Your task to perform on an android device: Clear the shopping cart on walmart.com. Search for "bose soundsport free" on walmart.com, select the first entry, add it to the cart, then select checkout. Image 0: 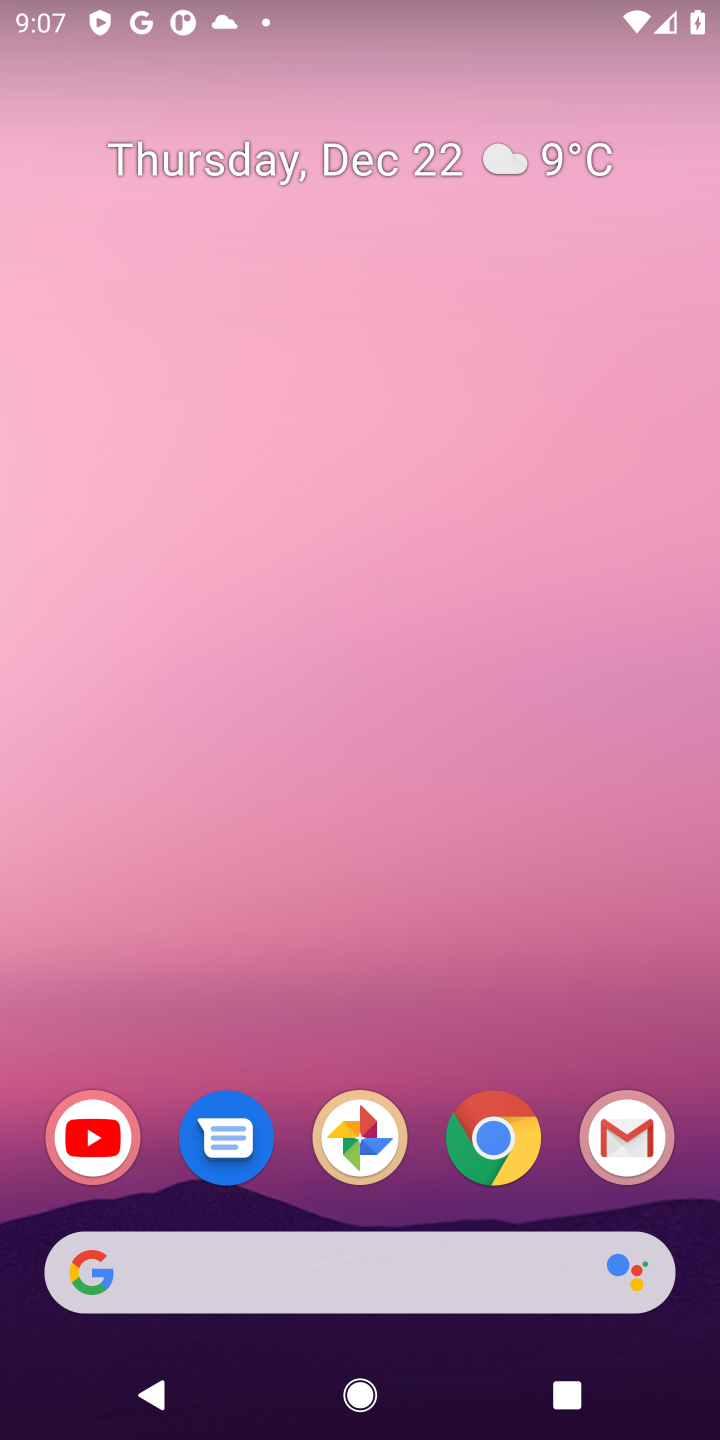
Step 0: click (492, 1139)
Your task to perform on an android device: Clear the shopping cart on walmart.com. Search for "bose soundsport free" on walmart.com, select the first entry, add it to the cart, then select checkout. Image 1: 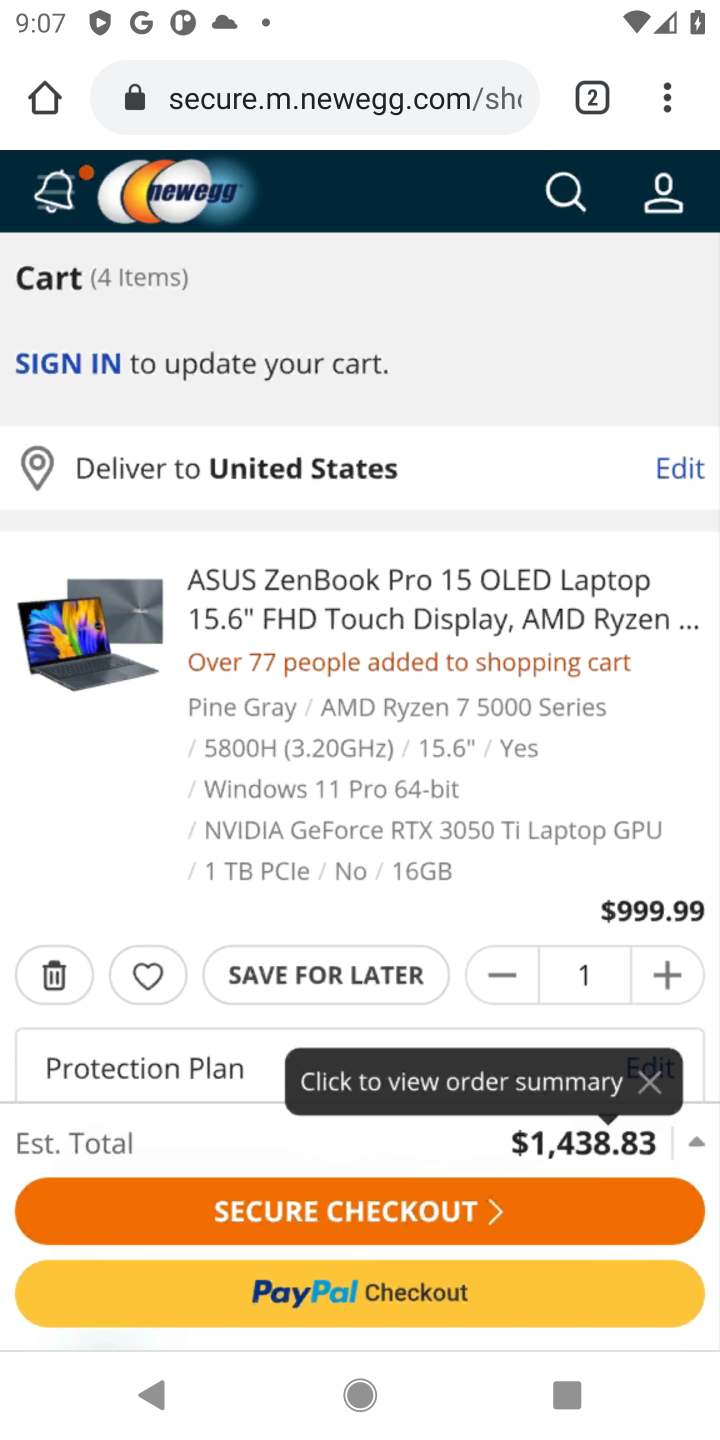
Step 1: click (283, 102)
Your task to perform on an android device: Clear the shopping cart on walmart.com. Search for "bose soundsport free" on walmart.com, select the first entry, add it to the cart, then select checkout. Image 2: 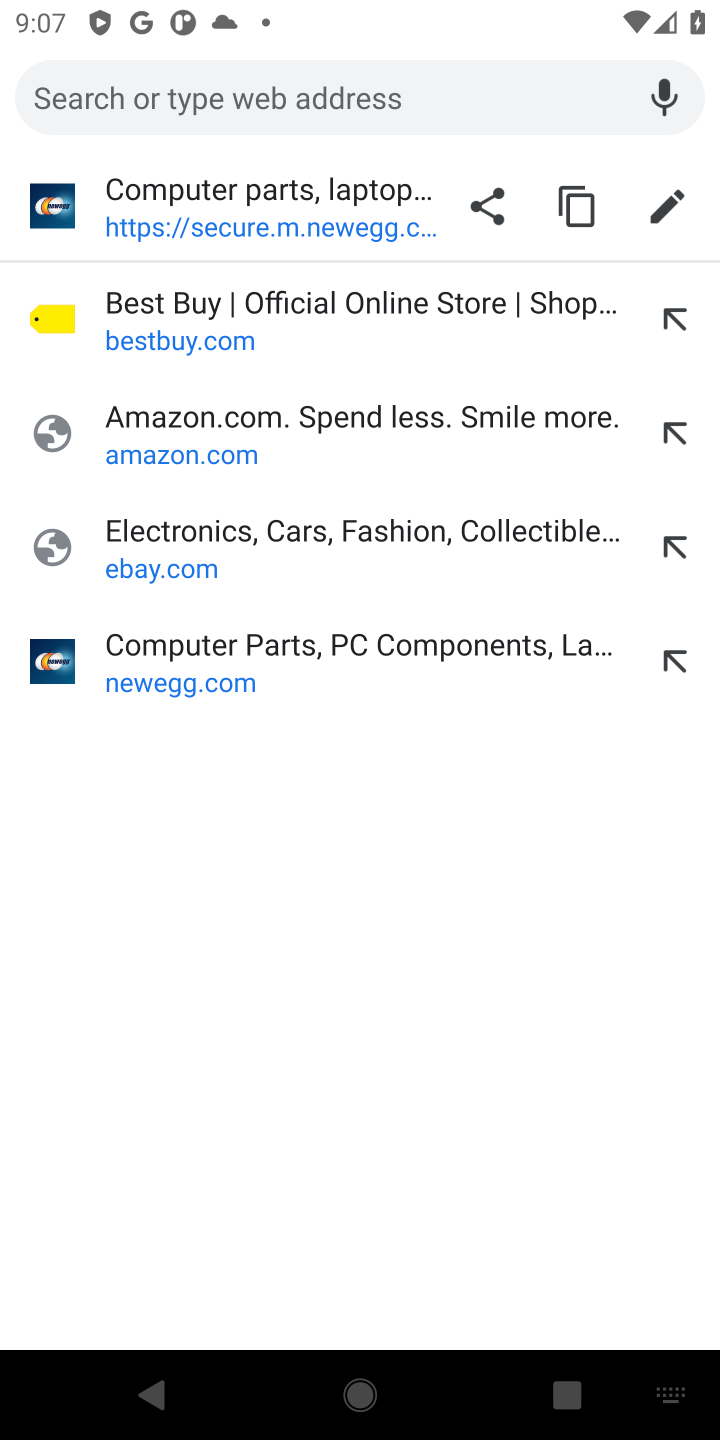
Step 2: type "walmart.com"
Your task to perform on an android device: Clear the shopping cart on walmart.com. Search for "bose soundsport free" on walmart.com, select the first entry, add it to the cart, then select checkout. Image 3: 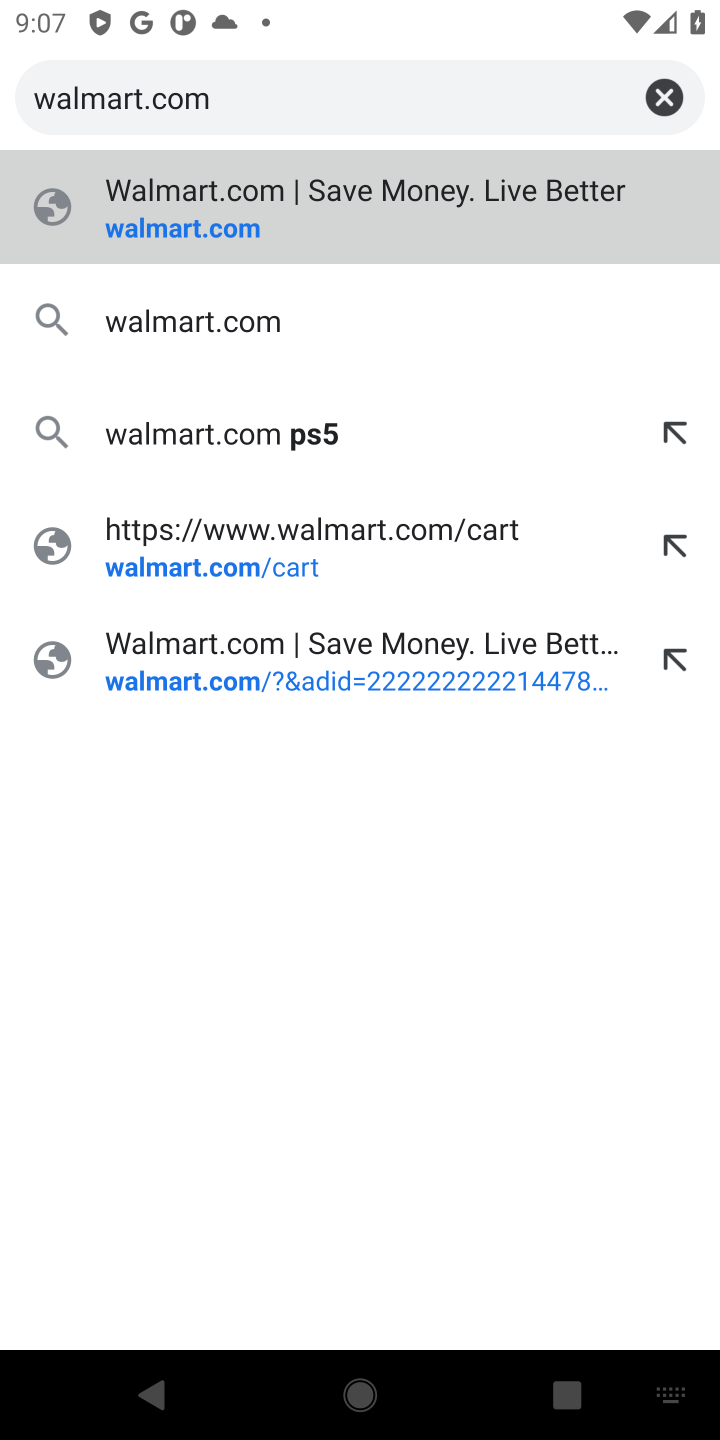
Step 3: click (173, 222)
Your task to perform on an android device: Clear the shopping cart on walmart.com. Search for "bose soundsport free" on walmart.com, select the first entry, add it to the cart, then select checkout. Image 4: 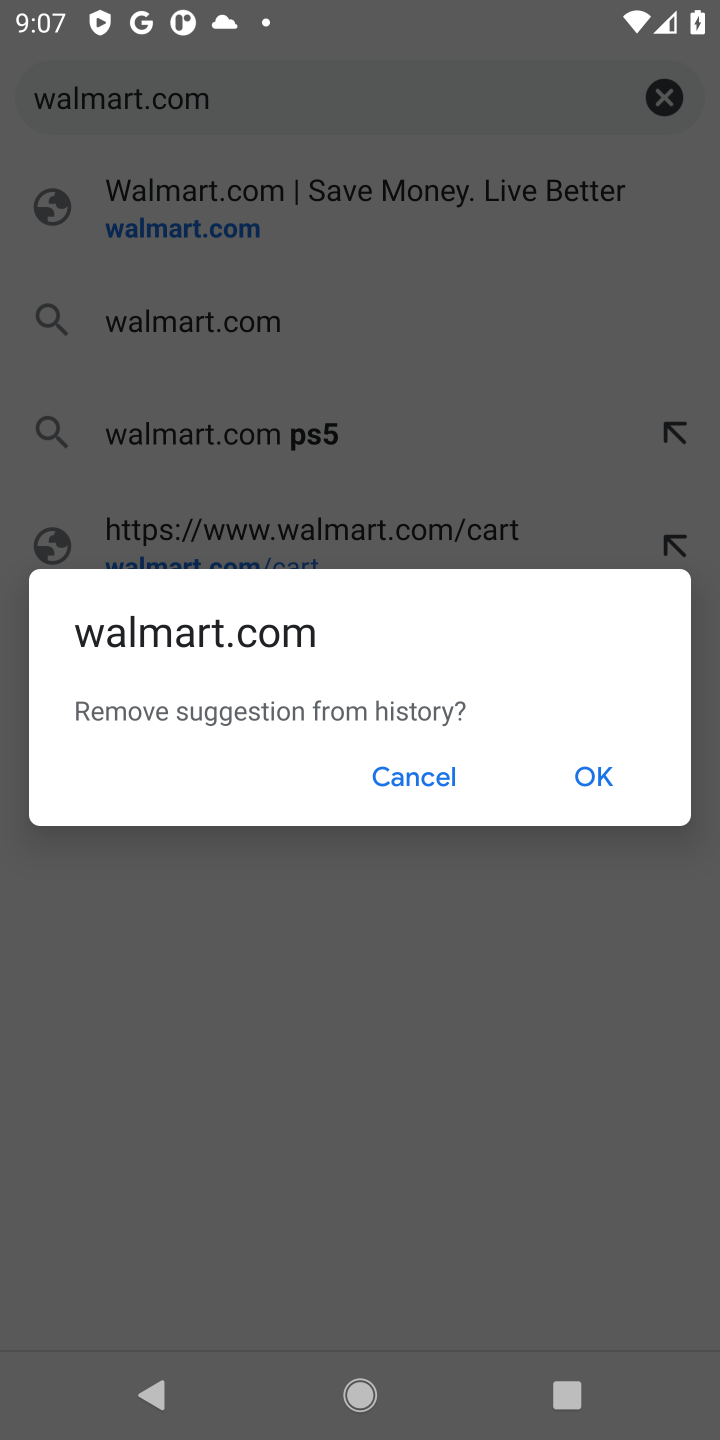
Step 4: click (586, 779)
Your task to perform on an android device: Clear the shopping cart on walmart.com. Search for "bose soundsport free" on walmart.com, select the first entry, add it to the cart, then select checkout. Image 5: 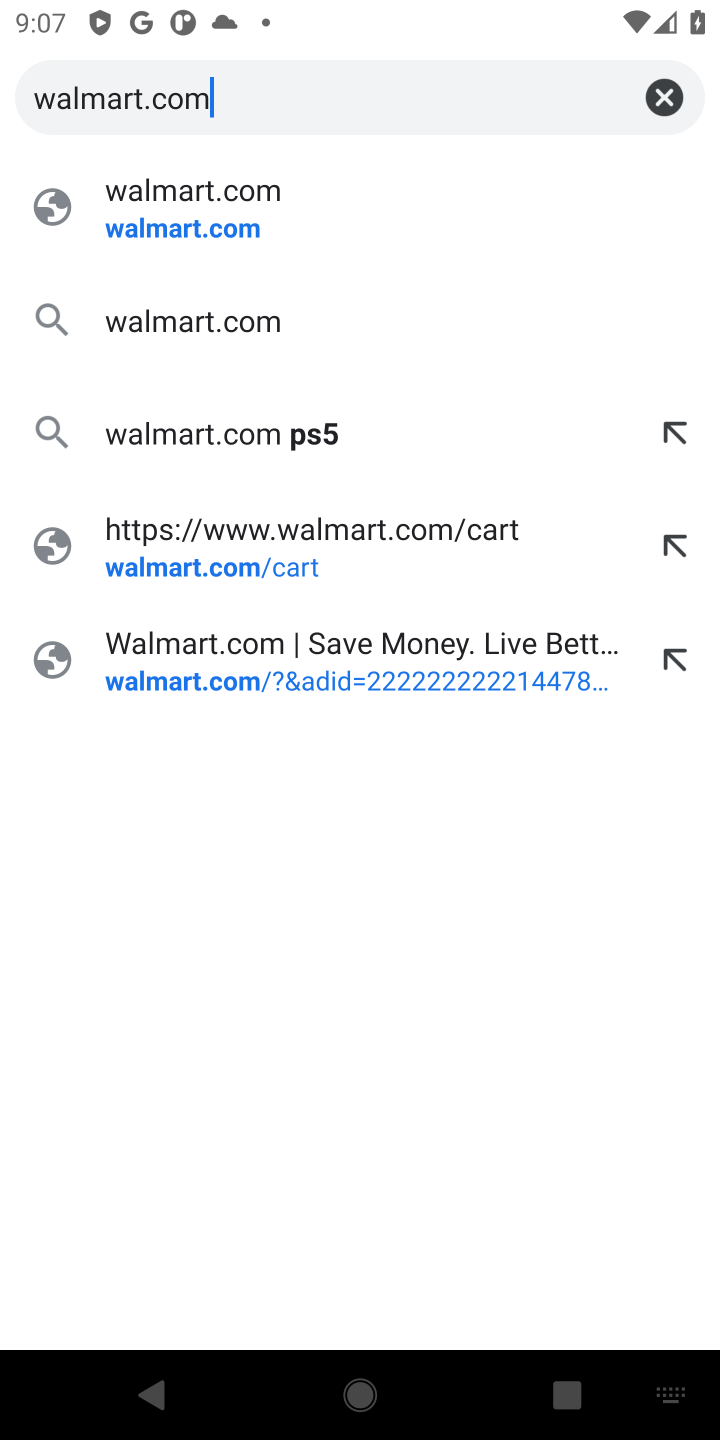
Step 5: press enter
Your task to perform on an android device: Clear the shopping cart on walmart.com. Search for "bose soundsport free" on walmart.com, select the first entry, add it to the cart, then select checkout. Image 6: 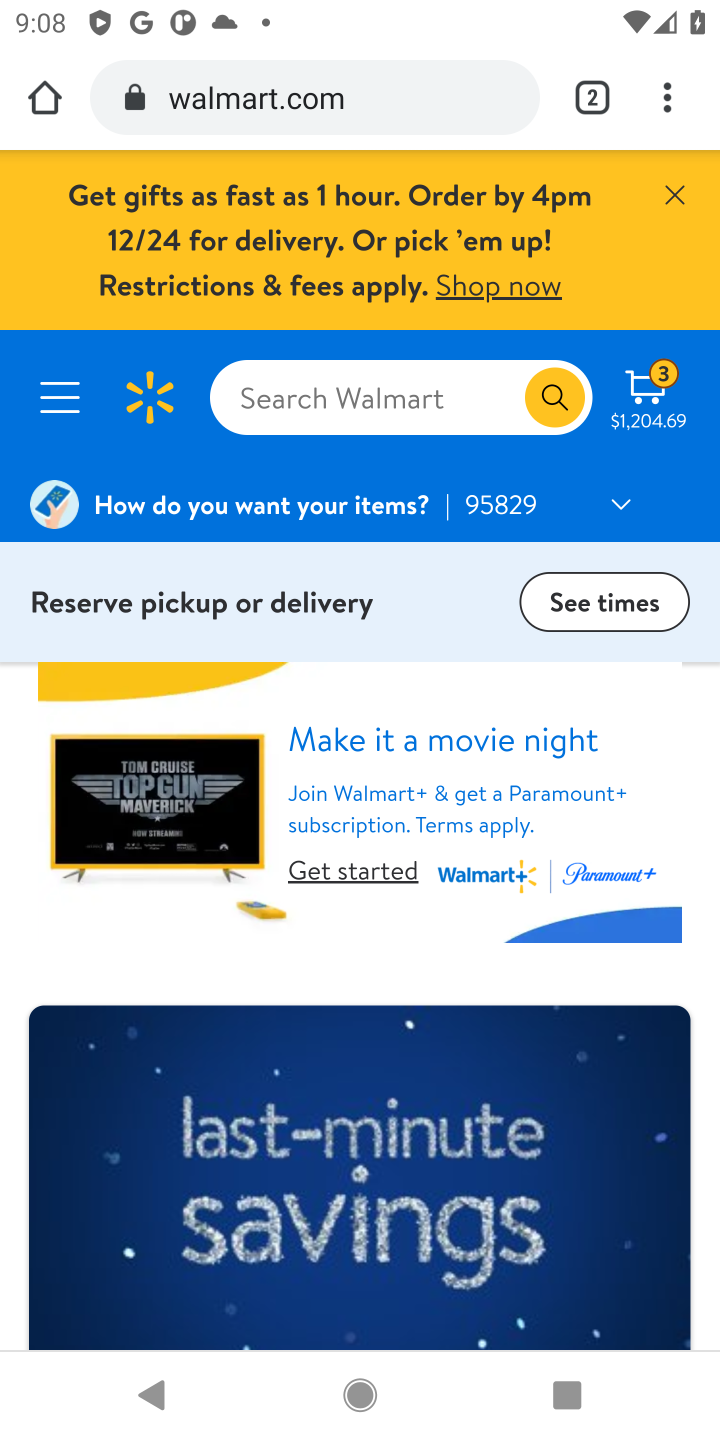
Step 6: click (411, 388)
Your task to perform on an android device: Clear the shopping cart on walmart.com. Search for "bose soundsport free" on walmart.com, select the first entry, add it to the cart, then select checkout. Image 7: 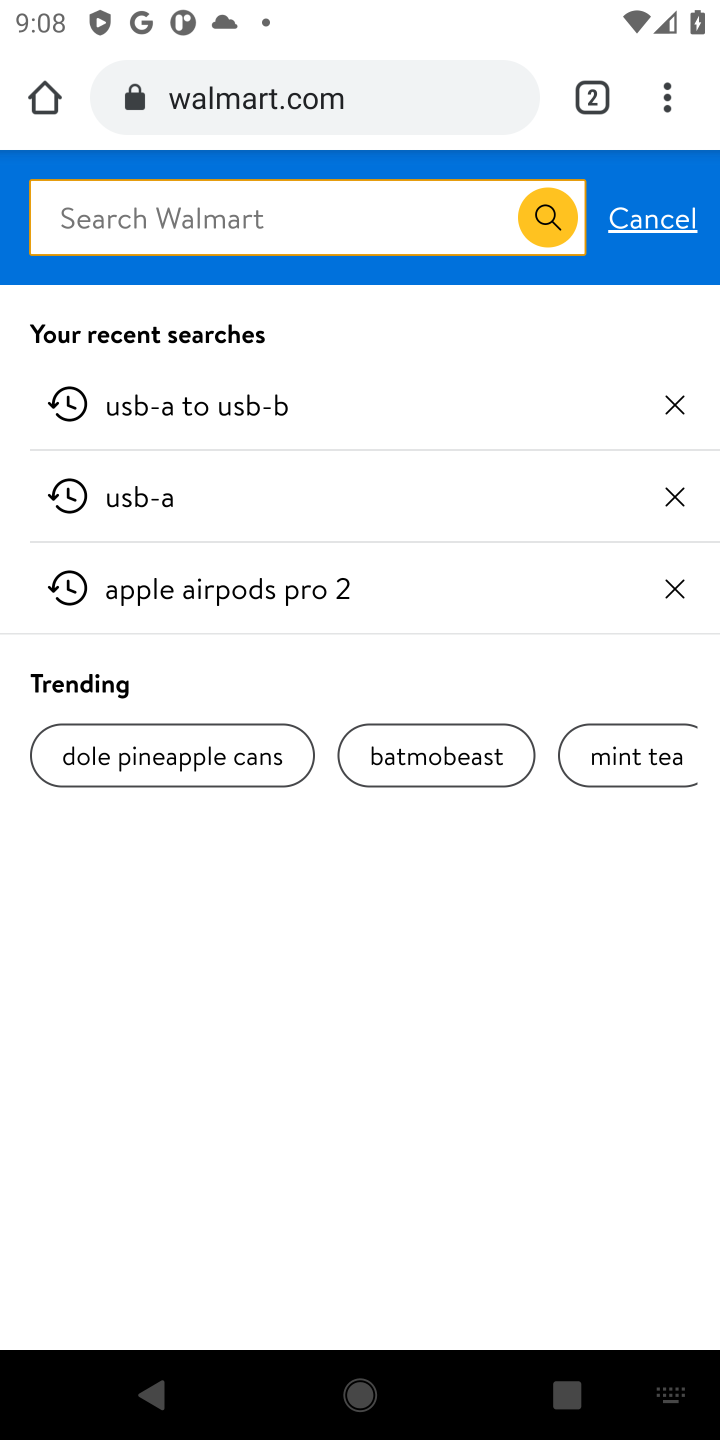
Step 7: type "bose soundsport free"
Your task to perform on an android device: Clear the shopping cart on walmart.com. Search for "bose soundsport free" on walmart.com, select the first entry, add it to the cart, then select checkout. Image 8: 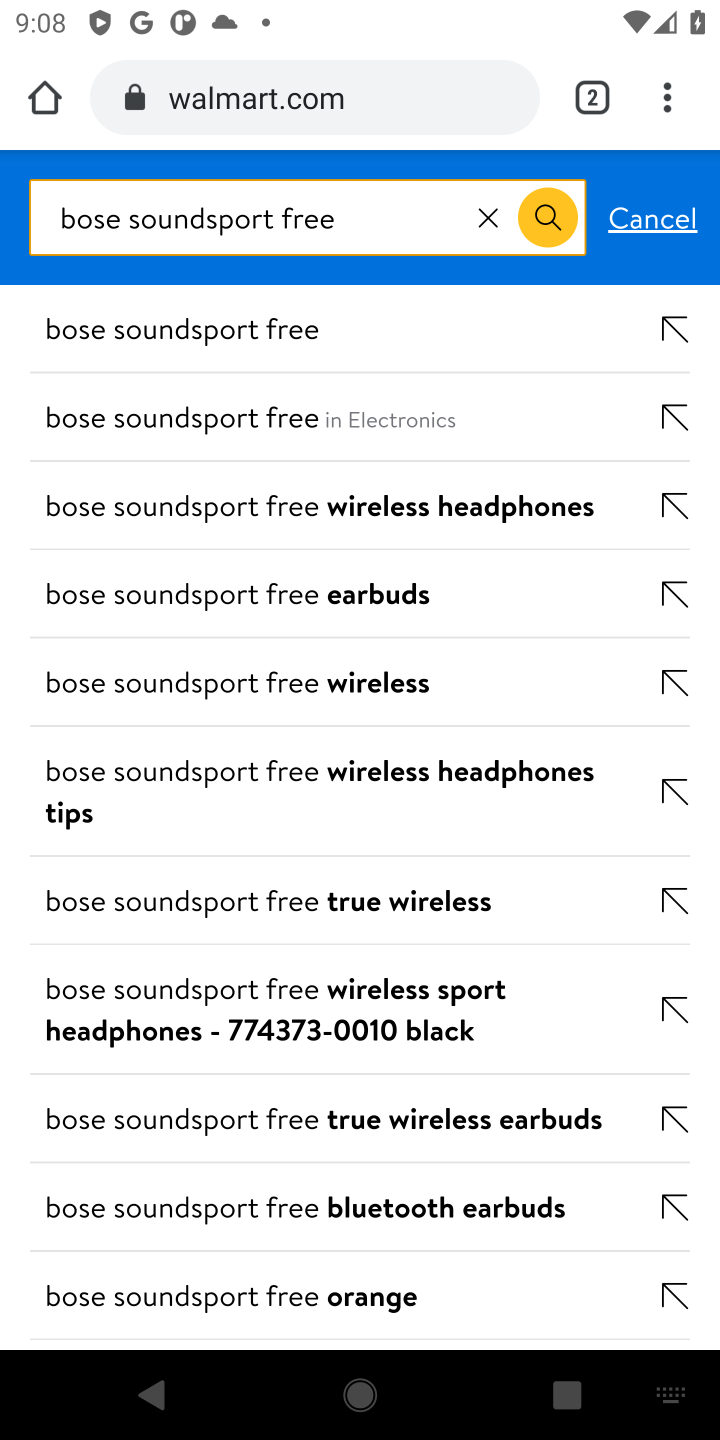
Step 8: click (553, 218)
Your task to perform on an android device: Clear the shopping cart on walmart.com. Search for "bose soundsport free" on walmart.com, select the first entry, add it to the cart, then select checkout. Image 9: 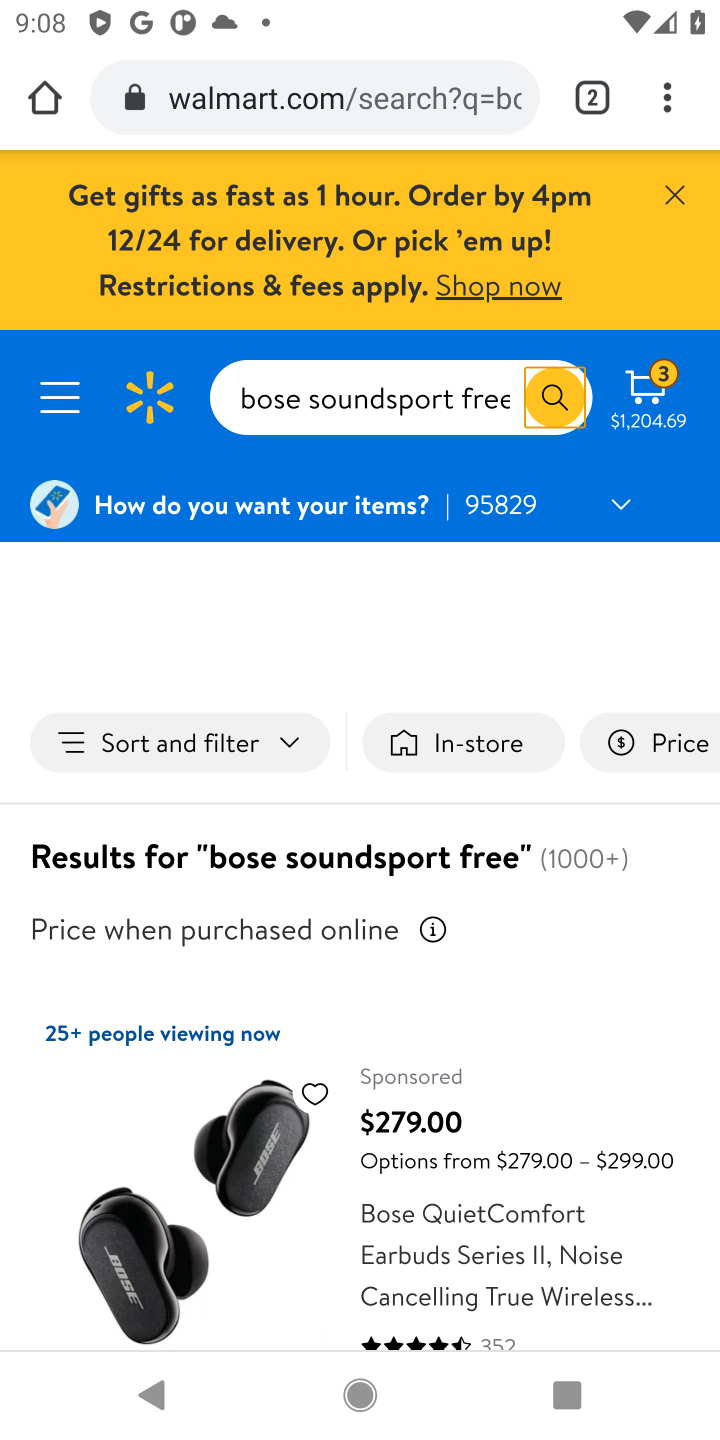
Step 9: drag from (598, 1144) to (540, 566)
Your task to perform on an android device: Clear the shopping cart on walmart.com. Search for "bose soundsport free" on walmart.com, select the first entry, add it to the cart, then select checkout. Image 10: 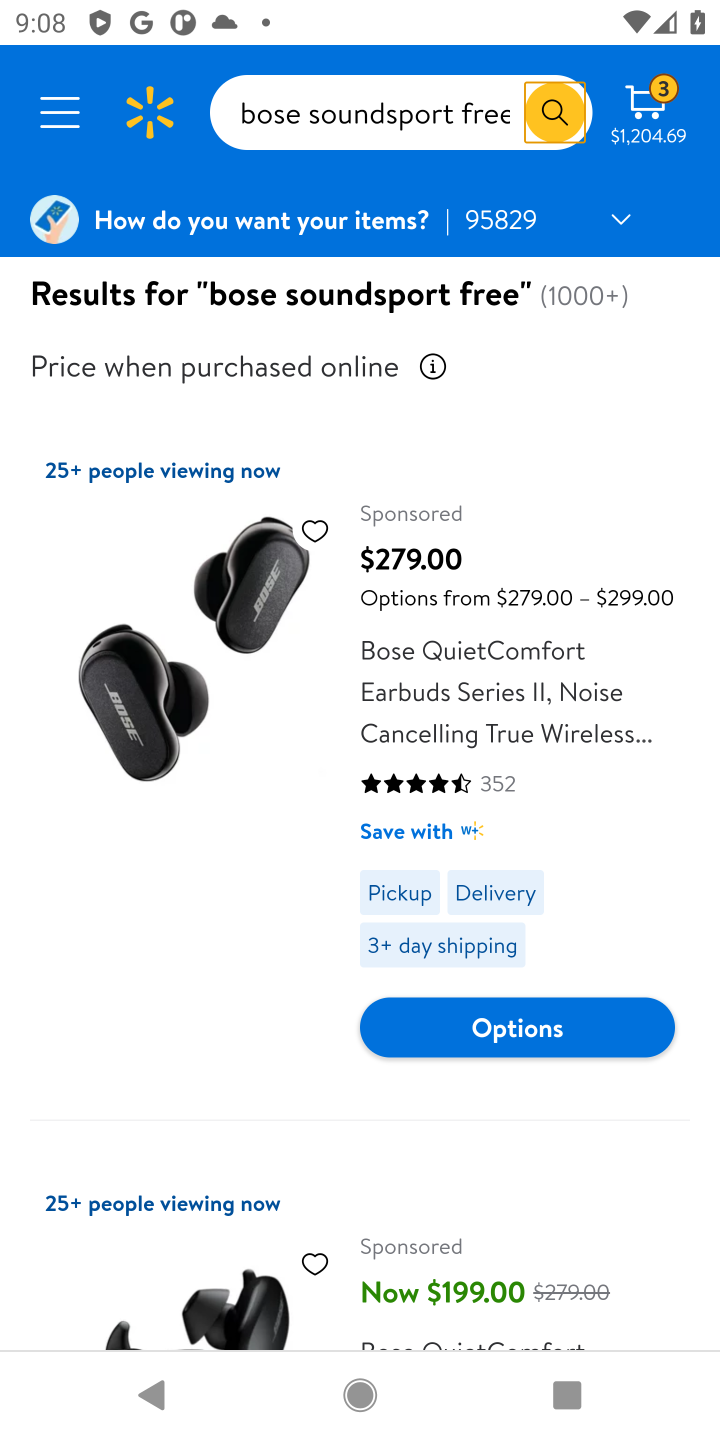
Step 10: click (228, 699)
Your task to perform on an android device: Clear the shopping cart on walmart.com. Search for "bose soundsport free" on walmart.com, select the first entry, add it to the cart, then select checkout. Image 11: 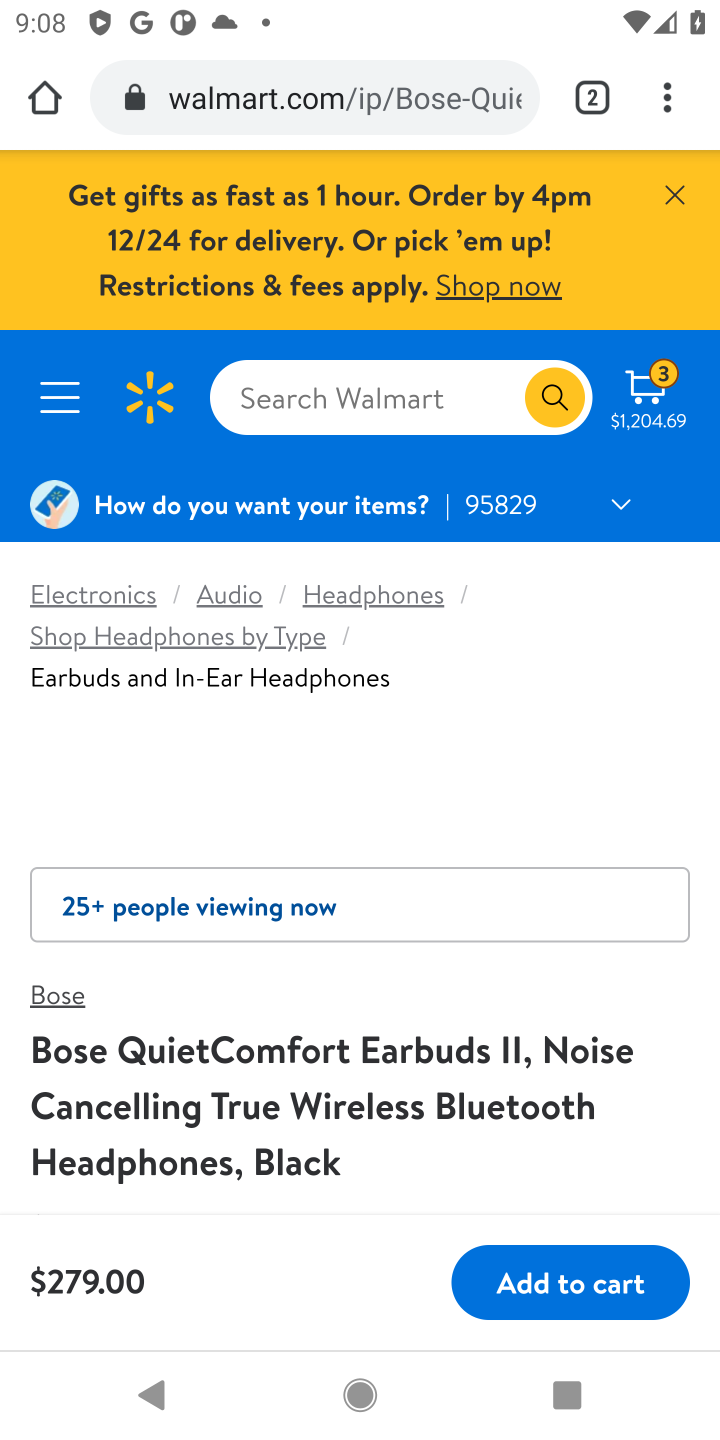
Step 11: click (650, 411)
Your task to perform on an android device: Clear the shopping cart on walmart.com. Search for "bose soundsport free" on walmart.com, select the first entry, add it to the cart, then select checkout. Image 12: 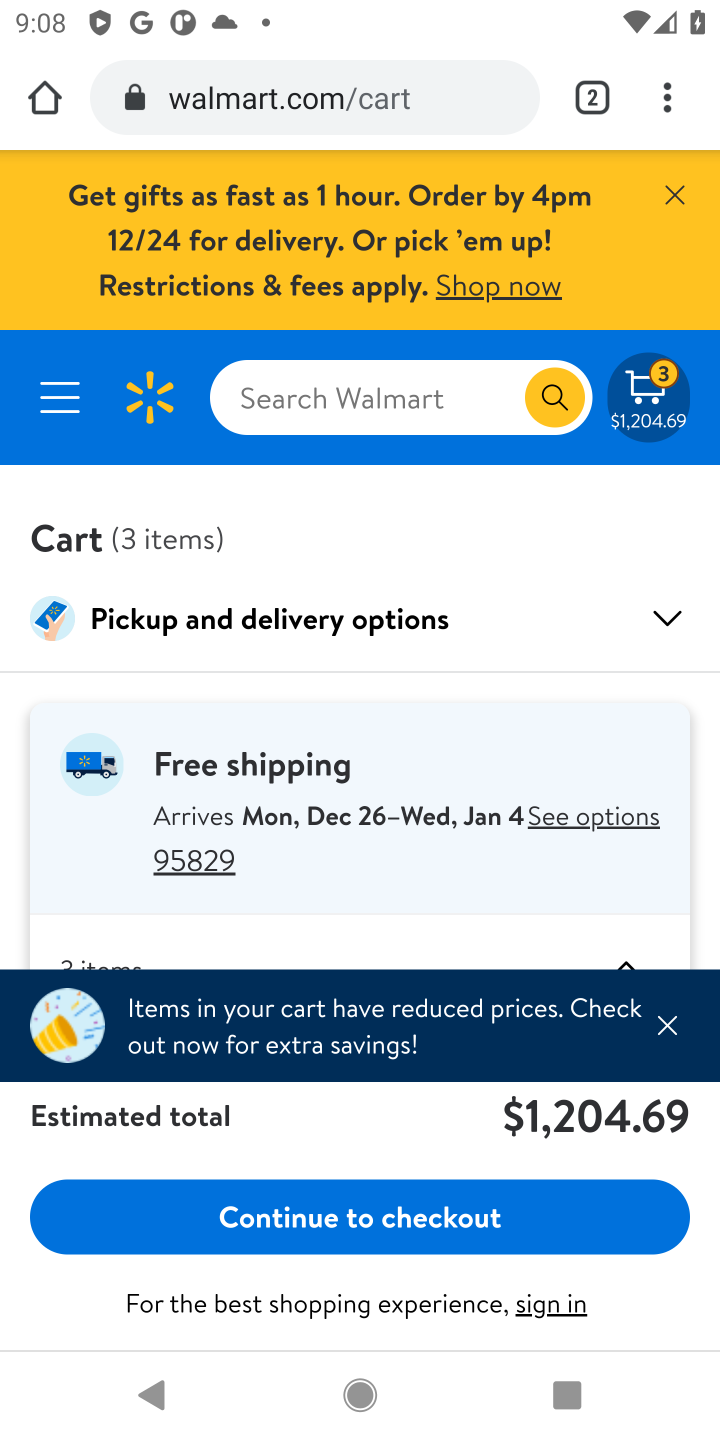
Step 12: click (670, 1031)
Your task to perform on an android device: Clear the shopping cart on walmart.com. Search for "bose soundsport free" on walmart.com, select the first entry, add it to the cart, then select checkout. Image 13: 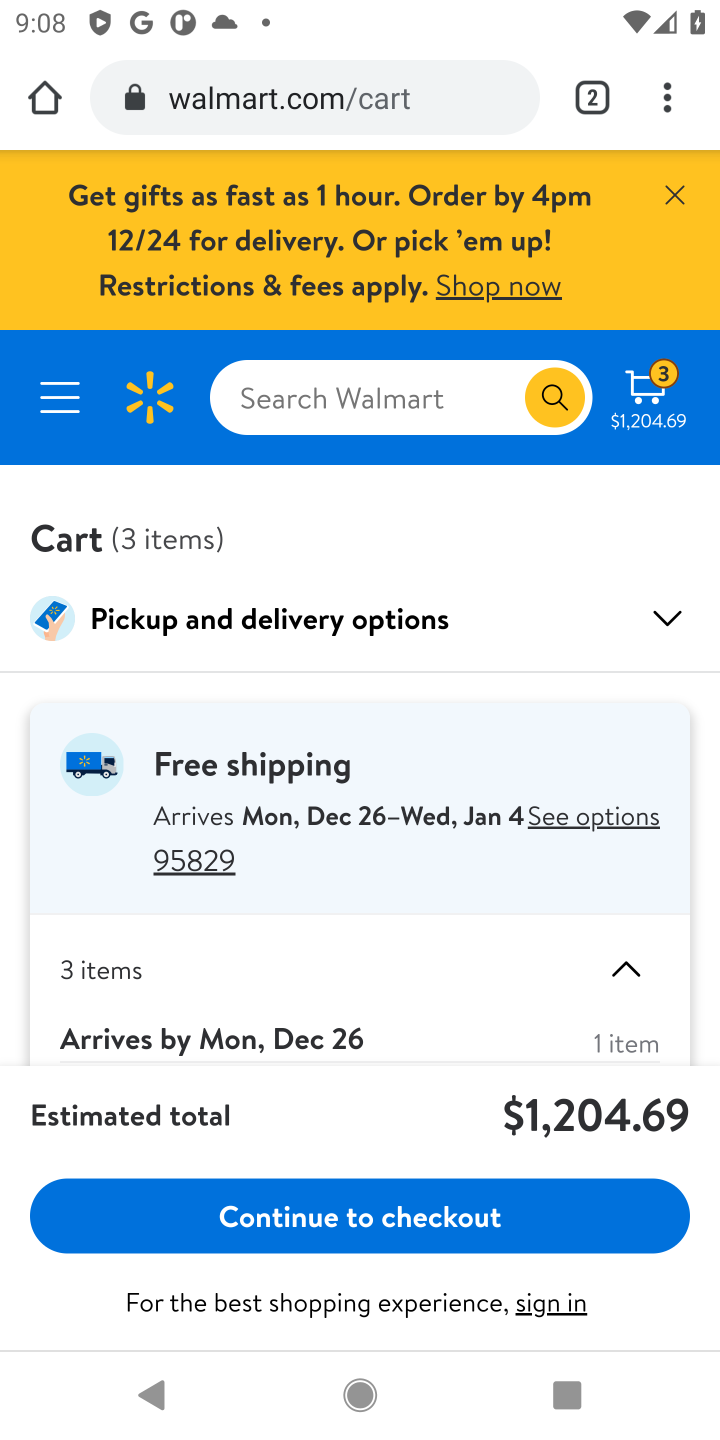
Step 13: drag from (487, 772) to (509, 524)
Your task to perform on an android device: Clear the shopping cart on walmart.com. Search for "bose soundsport free" on walmart.com, select the first entry, add it to the cart, then select checkout. Image 14: 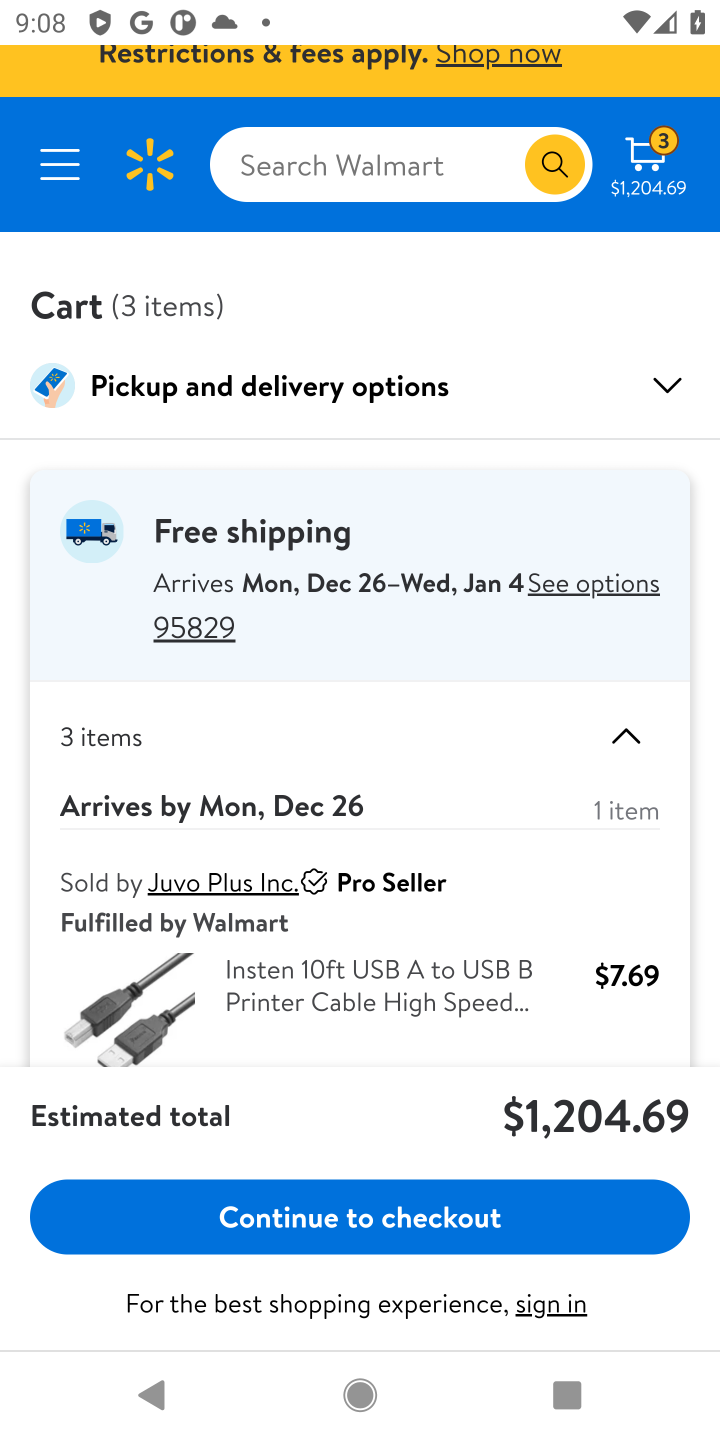
Step 14: drag from (500, 971) to (557, 474)
Your task to perform on an android device: Clear the shopping cart on walmart.com. Search for "bose soundsport free" on walmart.com, select the first entry, add it to the cart, then select checkout. Image 15: 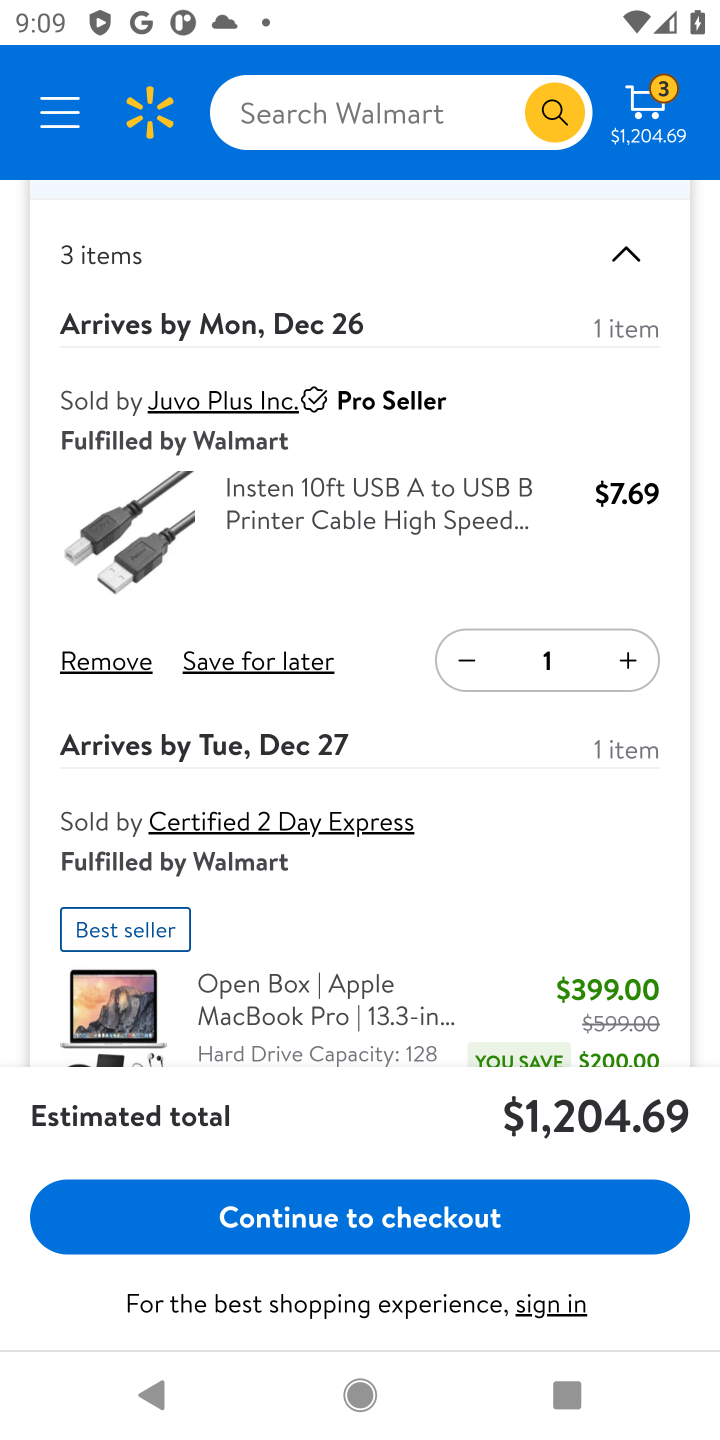
Step 15: click (92, 661)
Your task to perform on an android device: Clear the shopping cart on walmart.com. Search for "bose soundsport free" on walmart.com, select the first entry, add it to the cart, then select checkout. Image 16: 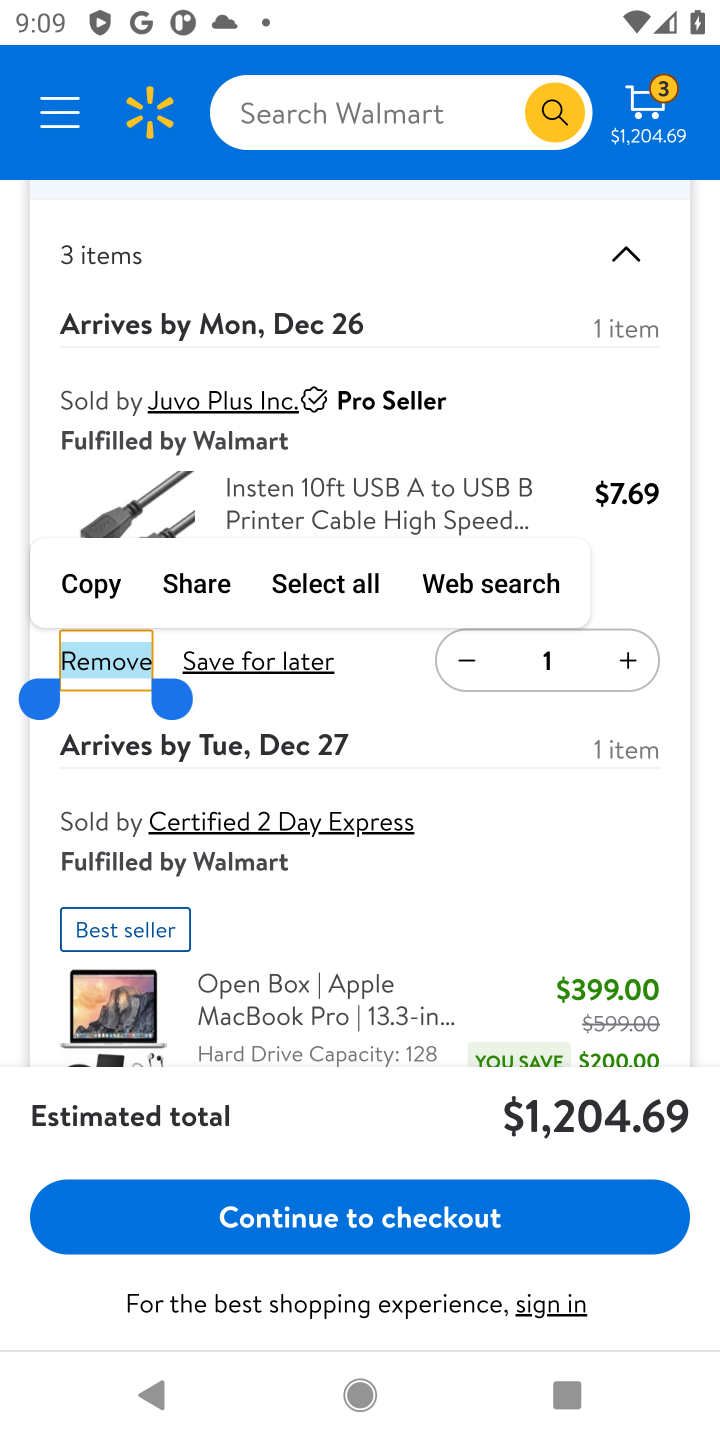
Step 16: click (92, 661)
Your task to perform on an android device: Clear the shopping cart on walmart.com. Search for "bose soundsport free" on walmart.com, select the first entry, add it to the cart, then select checkout. Image 17: 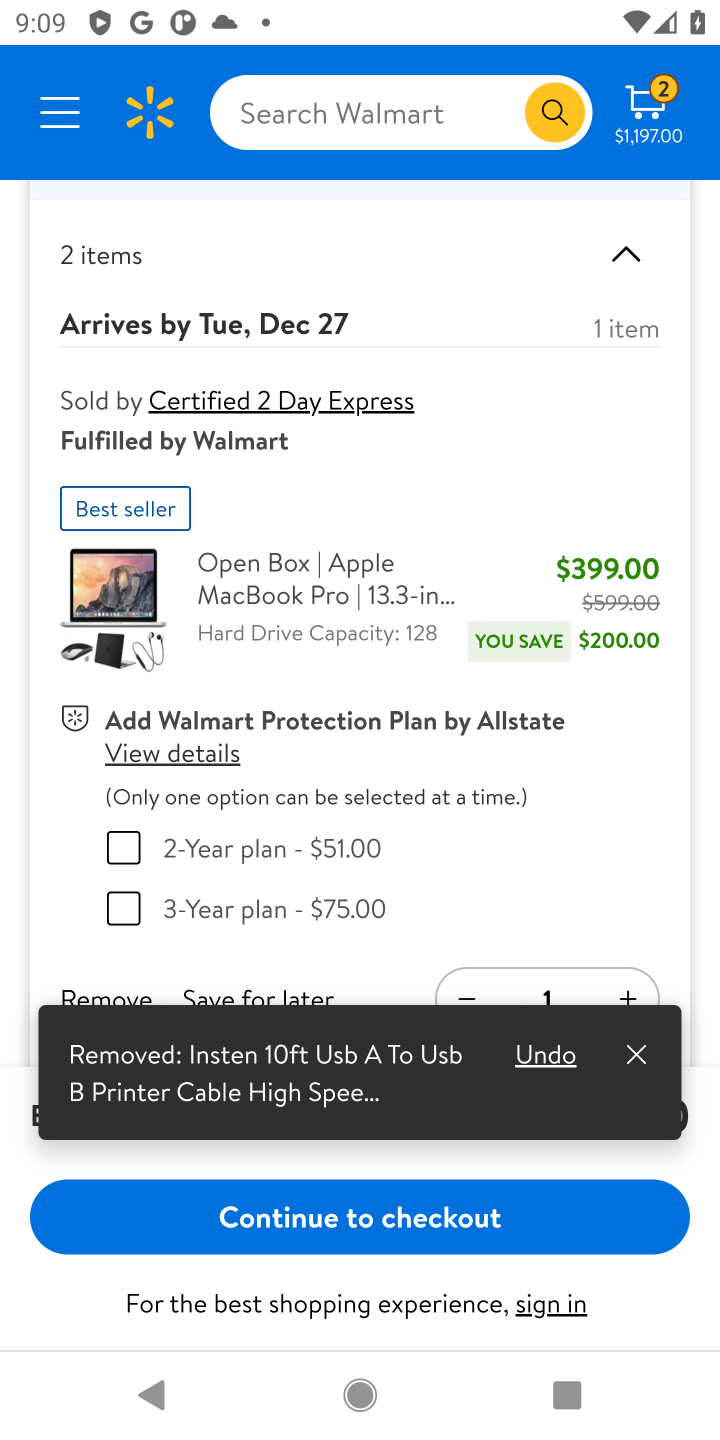
Step 17: drag from (515, 854) to (527, 427)
Your task to perform on an android device: Clear the shopping cart on walmart.com. Search for "bose soundsport free" on walmart.com, select the first entry, add it to the cart, then select checkout. Image 18: 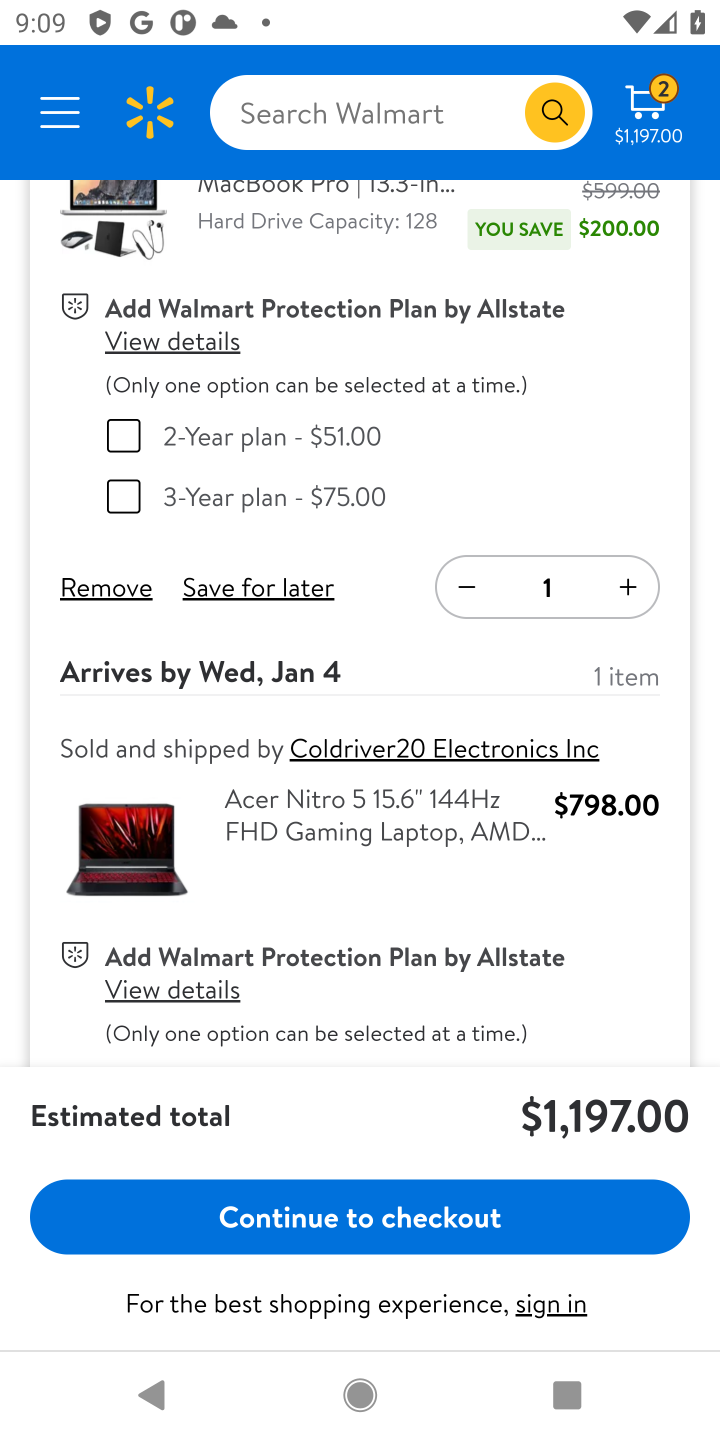
Step 18: click (96, 596)
Your task to perform on an android device: Clear the shopping cart on walmart.com. Search for "bose soundsport free" on walmart.com, select the first entry, add it to the cart, then select checkout. Image 19: 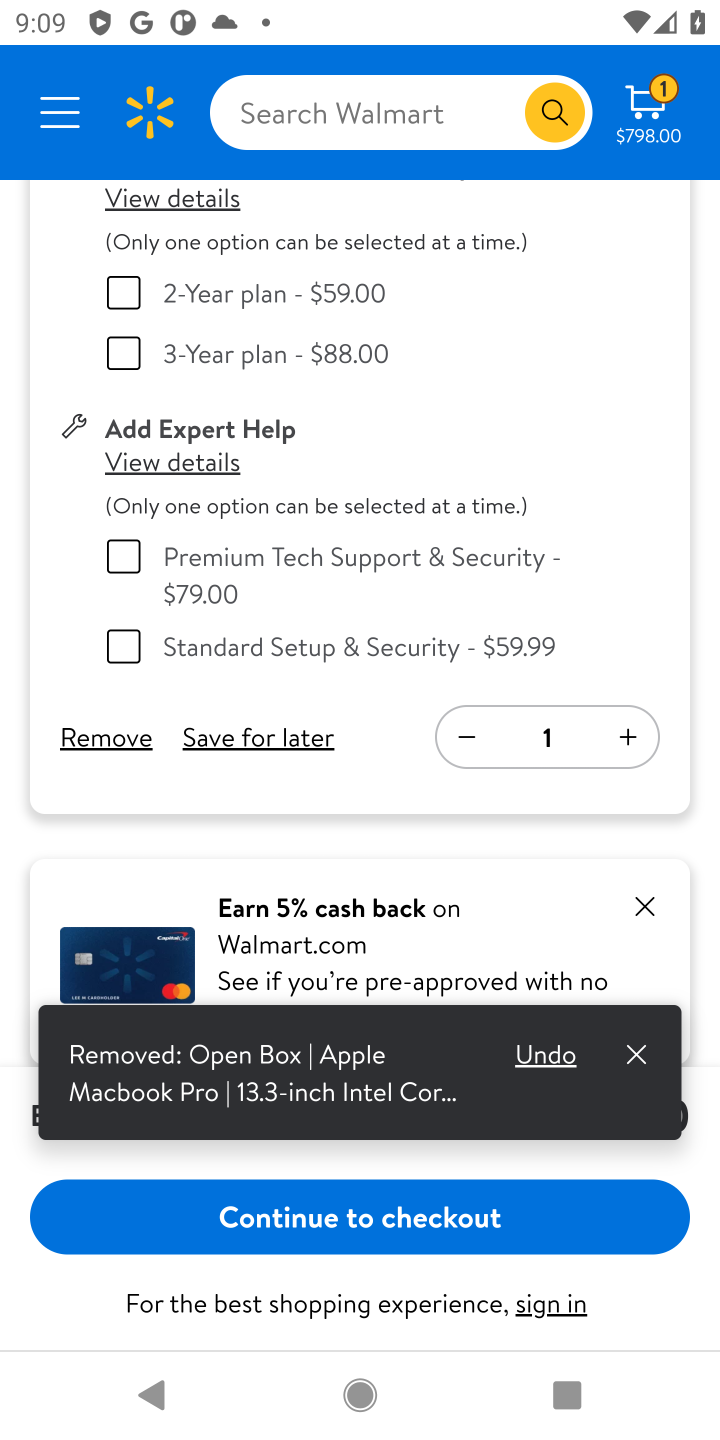
Step 19: click (88, 745)
Your task to perform on an android device: Clear the shopping cart on walmart.com. Search for "bose soundsport free" on walmart.com, select the first entry, add it to the cart, then select checkout. Image 20: 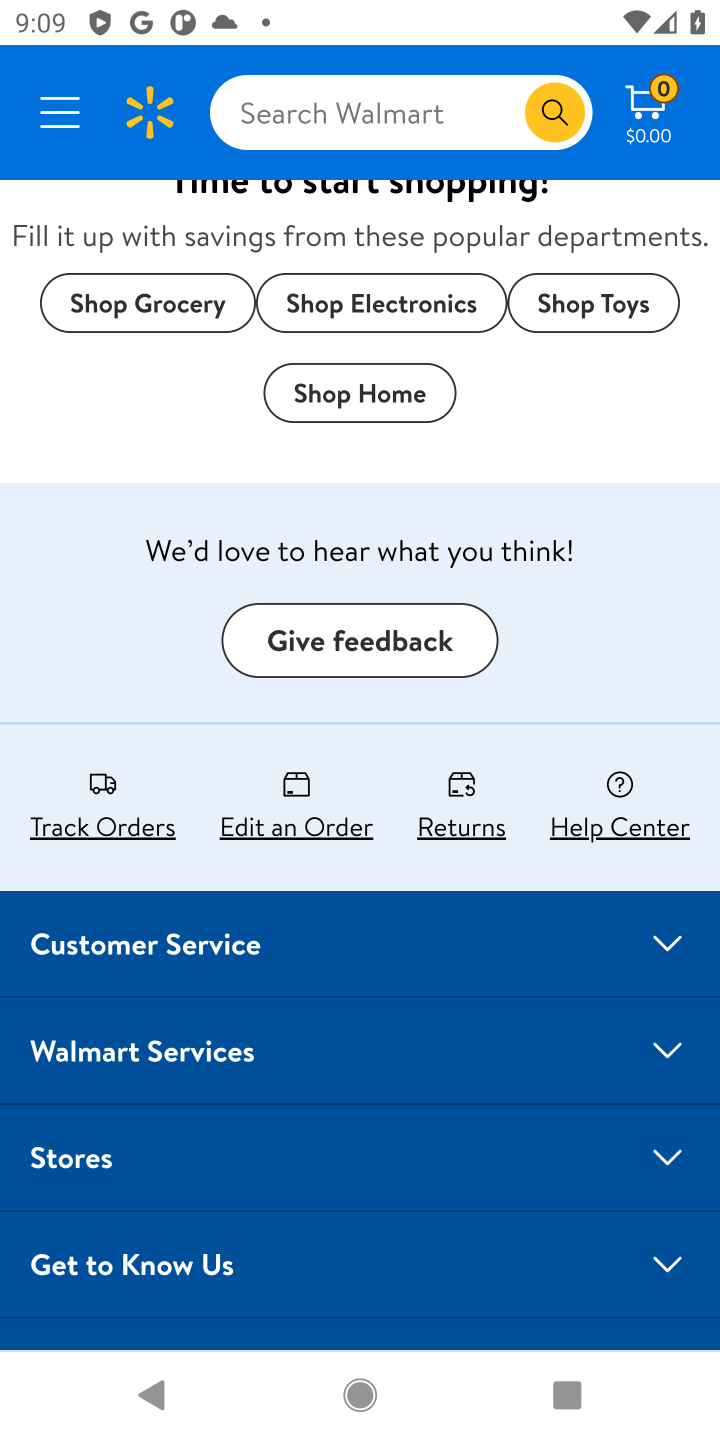
Step 20: click (375, 118)
Your task to perform on an android device: Clear the shopping cart on walmart.com. Search for "bose soundsport free" on walmart.com, select the first entry, add it to the cart, then select checkout. Image 21: 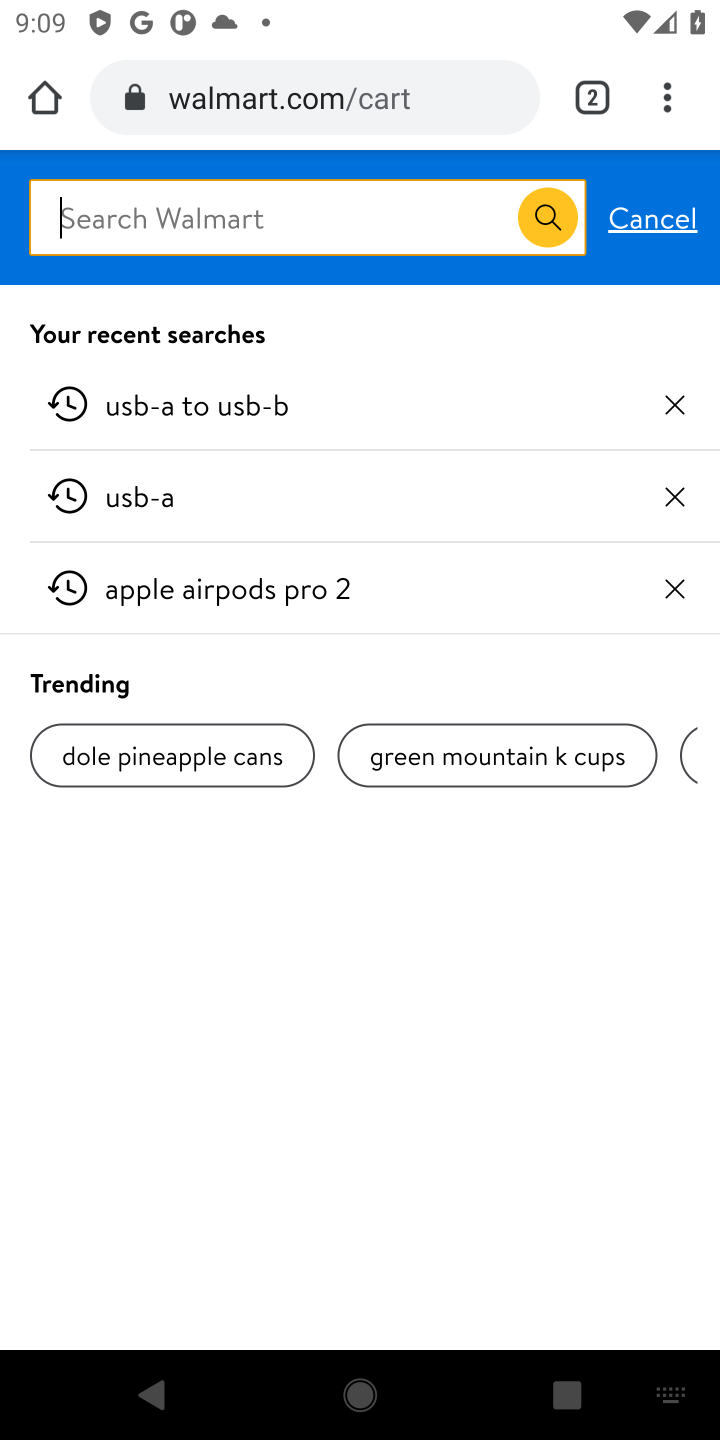
Step 21: type "bose soundsport free"
Your task to perform on an android device: Clear the shopping cart on walmart.com. Search for "bose soundsport free" on walmart.com, select the first entry, add it to the cart, then select checkout. Image 22: 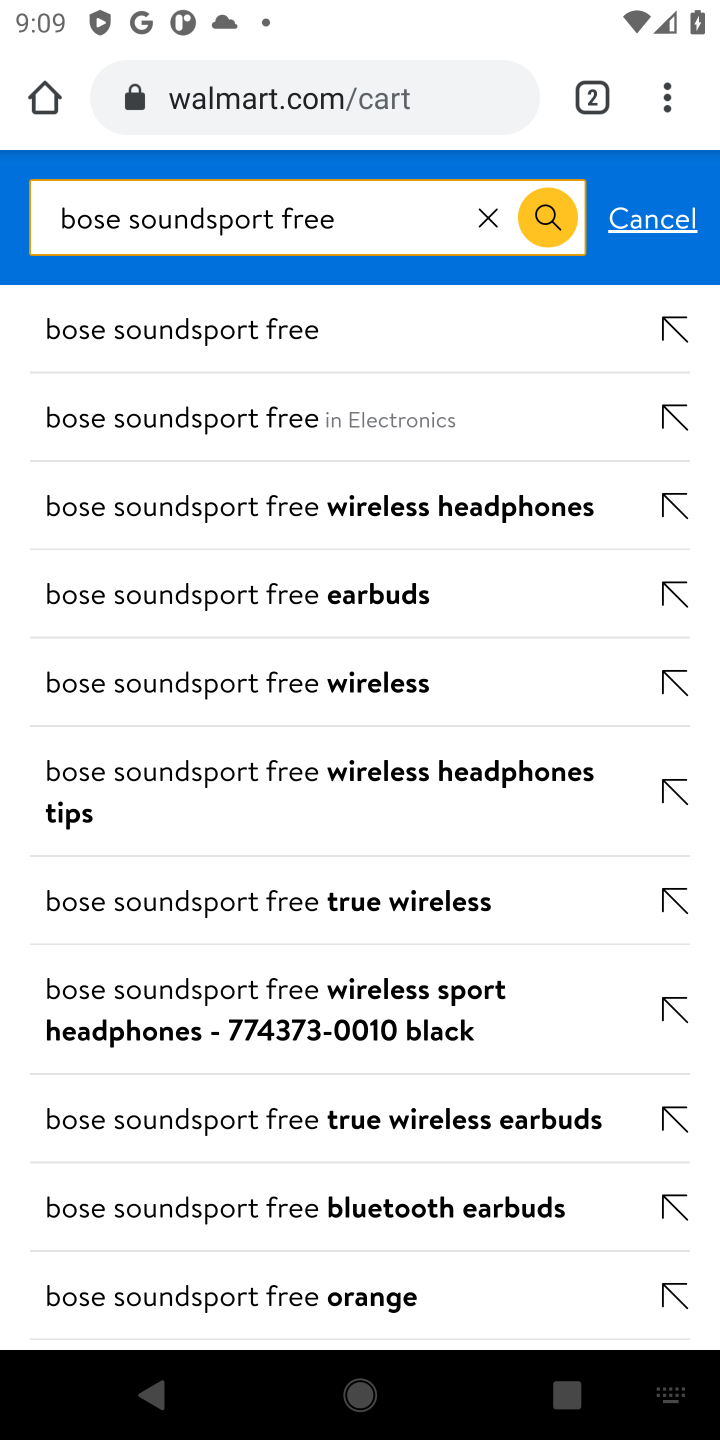
Step 22: click (540, 235)
Your task to perform on an android device: Clear the shopping cart on walmart.com. Search for "bose soundsport free" on walmart.com, select the first entry, add it to the cart, then select checkout. Image 23: 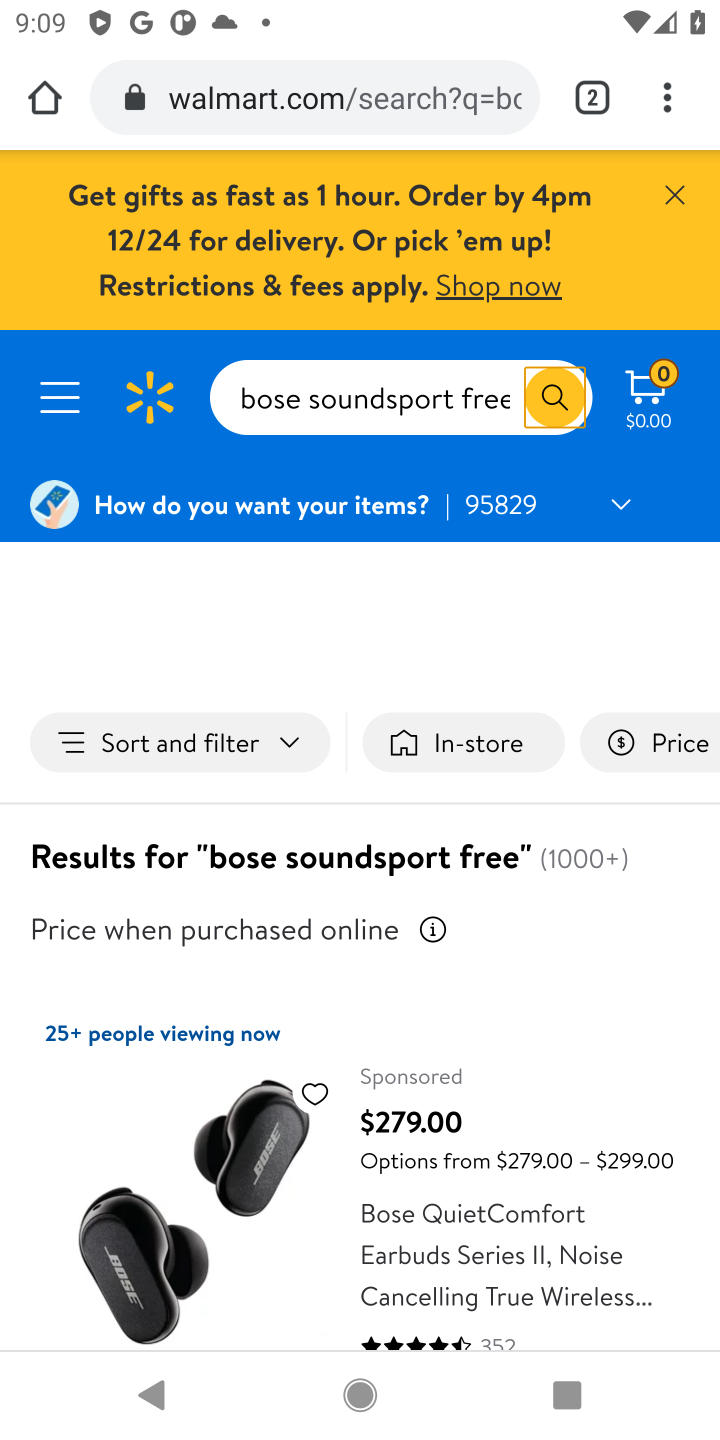
Step 23: drag from (641, 1046) to (648, 465)
Your task to perform on an android device: Clear the shopping cart on walmart.com. Search for "bose soundsport free" on walmart.com, select the first entry, add it to the cart, then select checkout. Image 24: 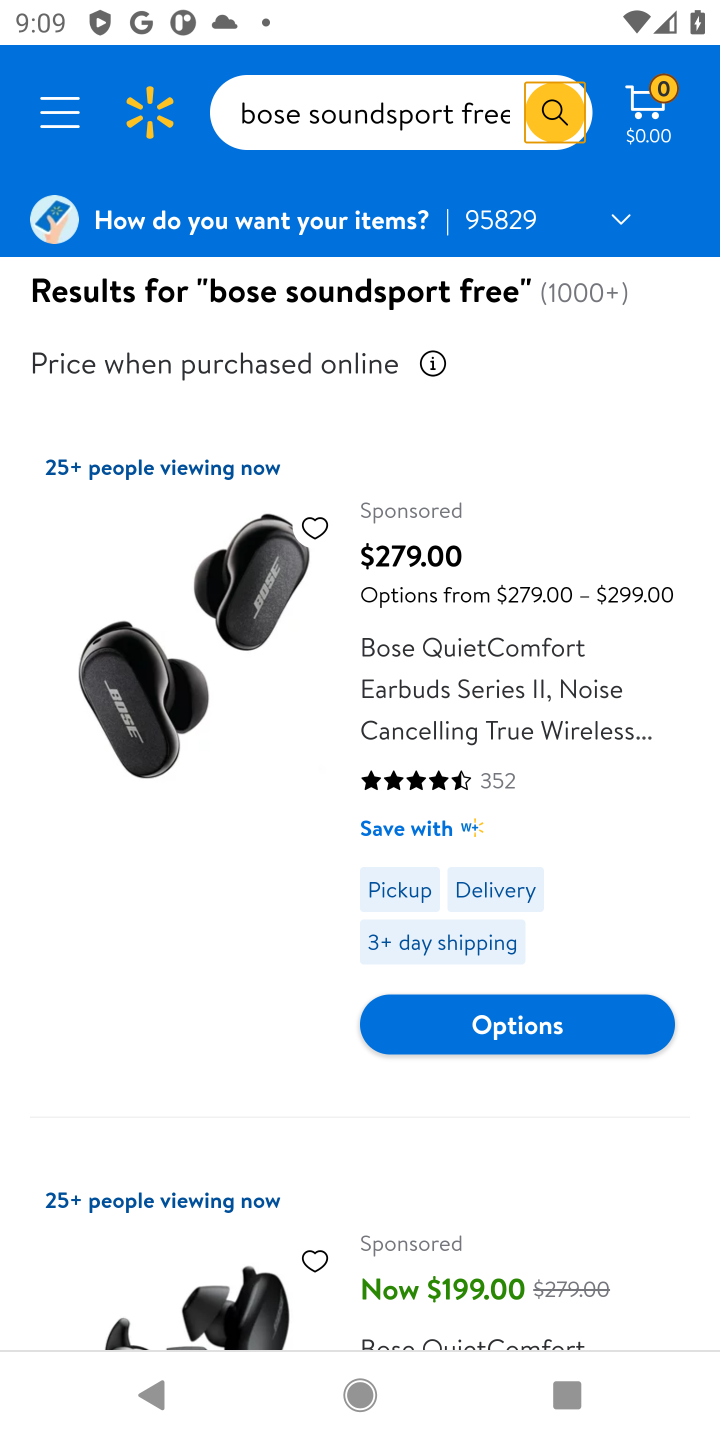
Step 24: click (465, 668)
Your task to perform on an android device: Clear the shopping cart on walmart.com. Search for "bose soundsport free" on walmart.com, select the first entry, add it to the cart, then select checkout. Image 25: 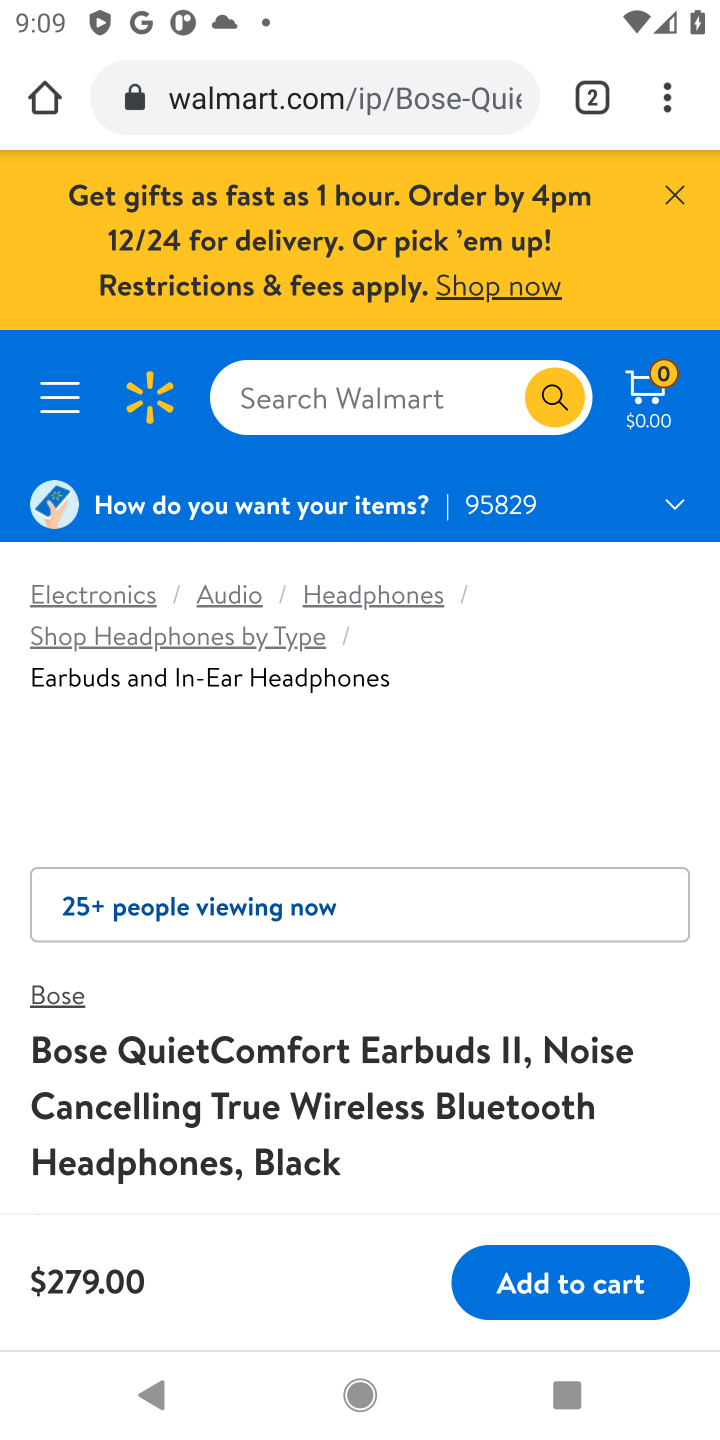
Step 25: drag from (417, 847) to (445, 521)
Your task to perform on an android device: Clear the shopping cart on walmart.com. Search for "bose soundsport free" on walmart.com, select the first entry, add it to the cart, then select checkout. Image 26: 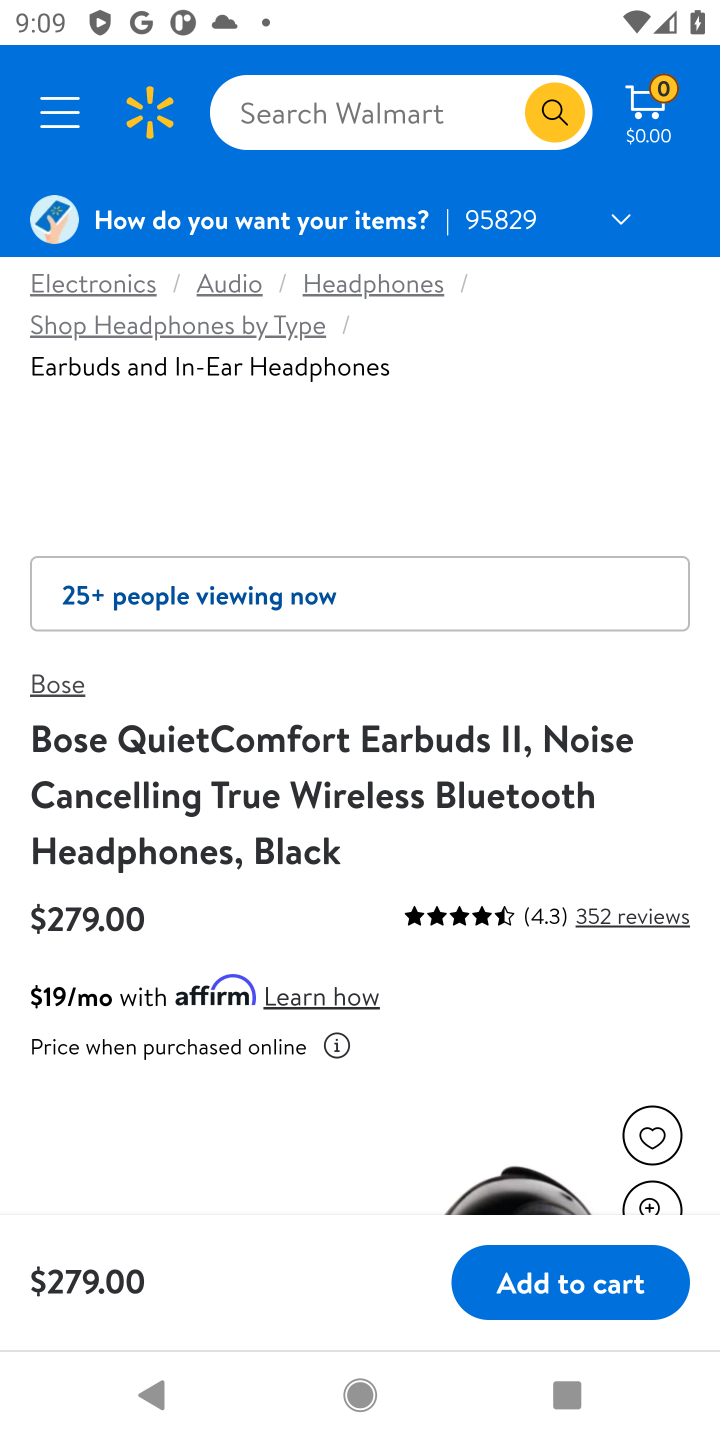
Step 26: drag from (478, 1065) to (486, 670)
Your task to perform on an android device: Clear the shopping cart on walmart.com. Search for "bose soundsport free" on walmart.com, select the first entry, add it to the cart, then select checkout. Image 27: 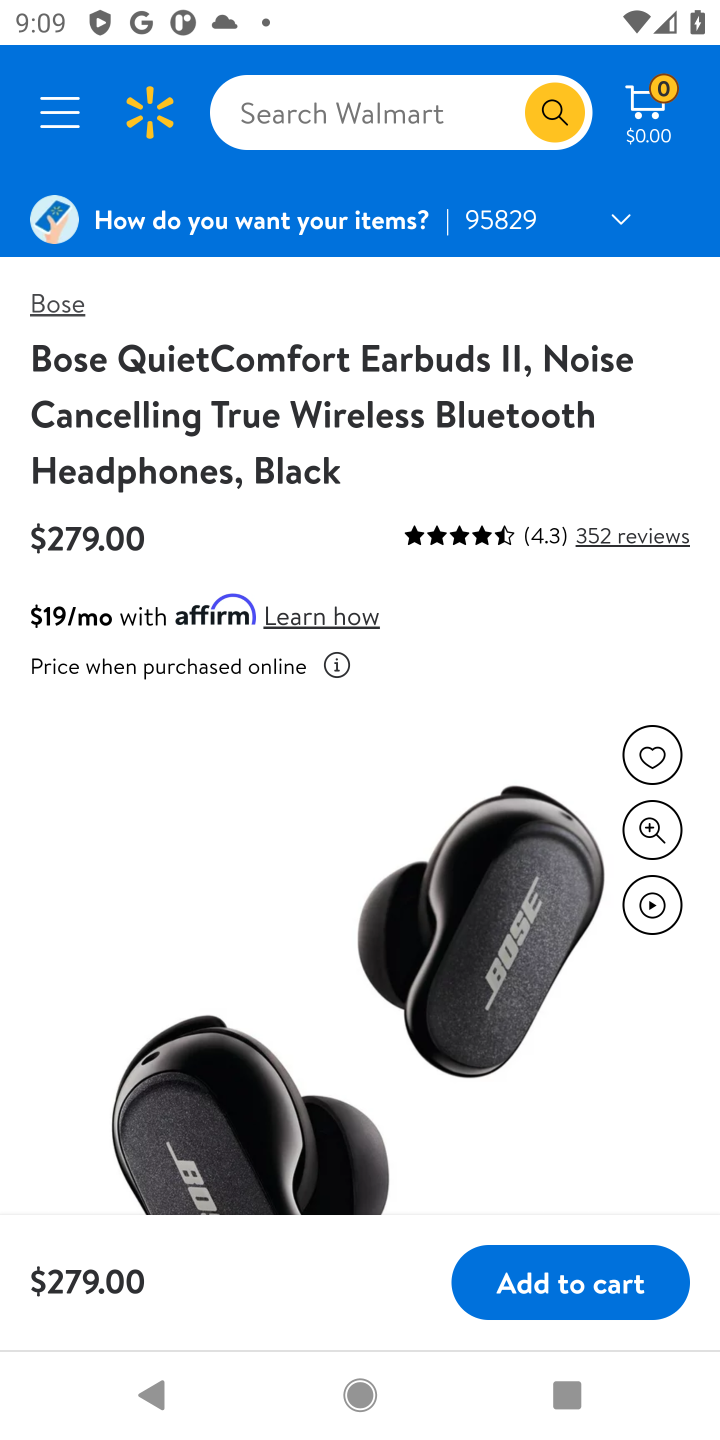
Step 27: drag from (620, 1155) to (622, 587)
Your task to perform on an android device: Clear the shopping cart on walmart.com. Search for "bose soundsport free" on walmart.com, select the first entry, add it to the cart, then select checkout. Image 28: 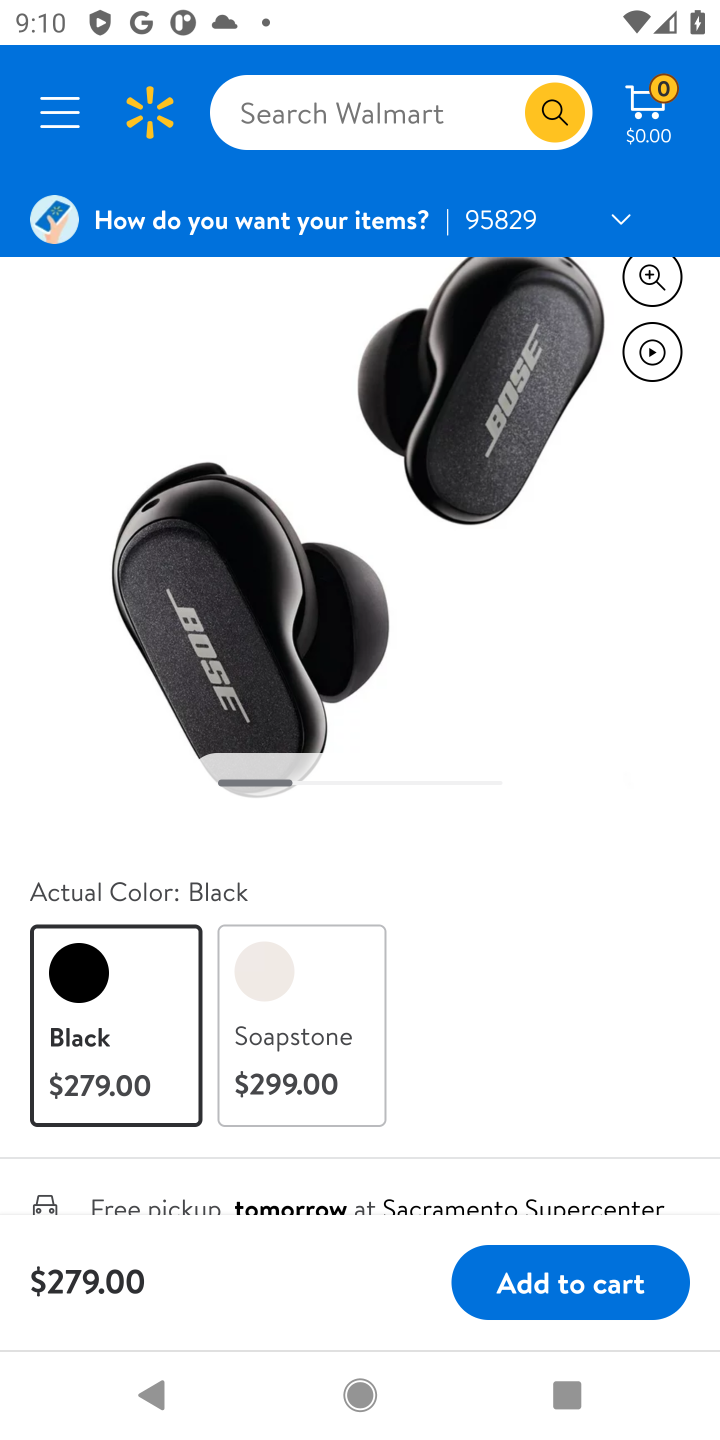
Step 28: click (537, 1275)
Your task to perform on an android device: Clear the shopping cart on walmart.com. Search for "bose soundsport free" on walmart.com, select the first entry, add it to the cart, then select checkout. Image 29: 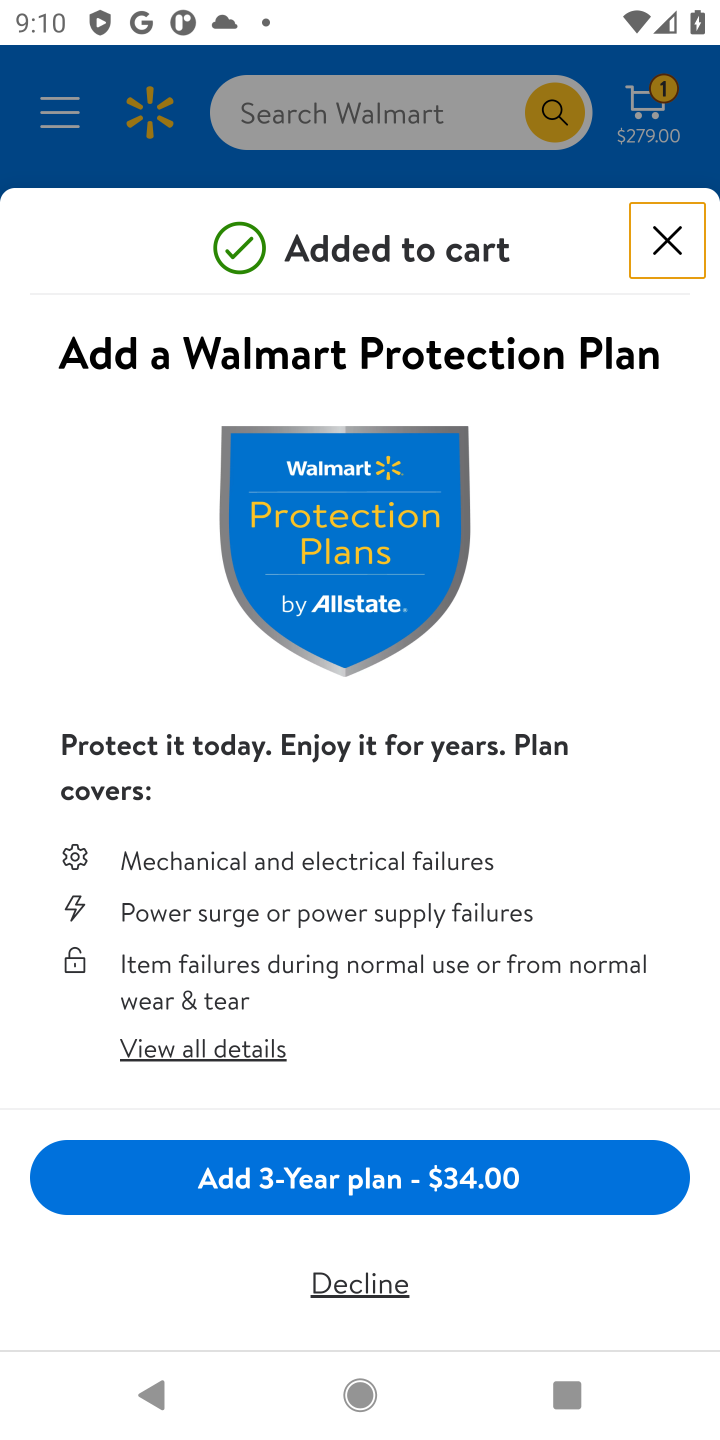
Step 29: click (359, 1189)
Your task to perform on an android device: Clear the shopping cart on walmart.com. Search for "bose soundsport free" on walmart.com, select the first entry, add it to the cart, then select checkout. Image 30: 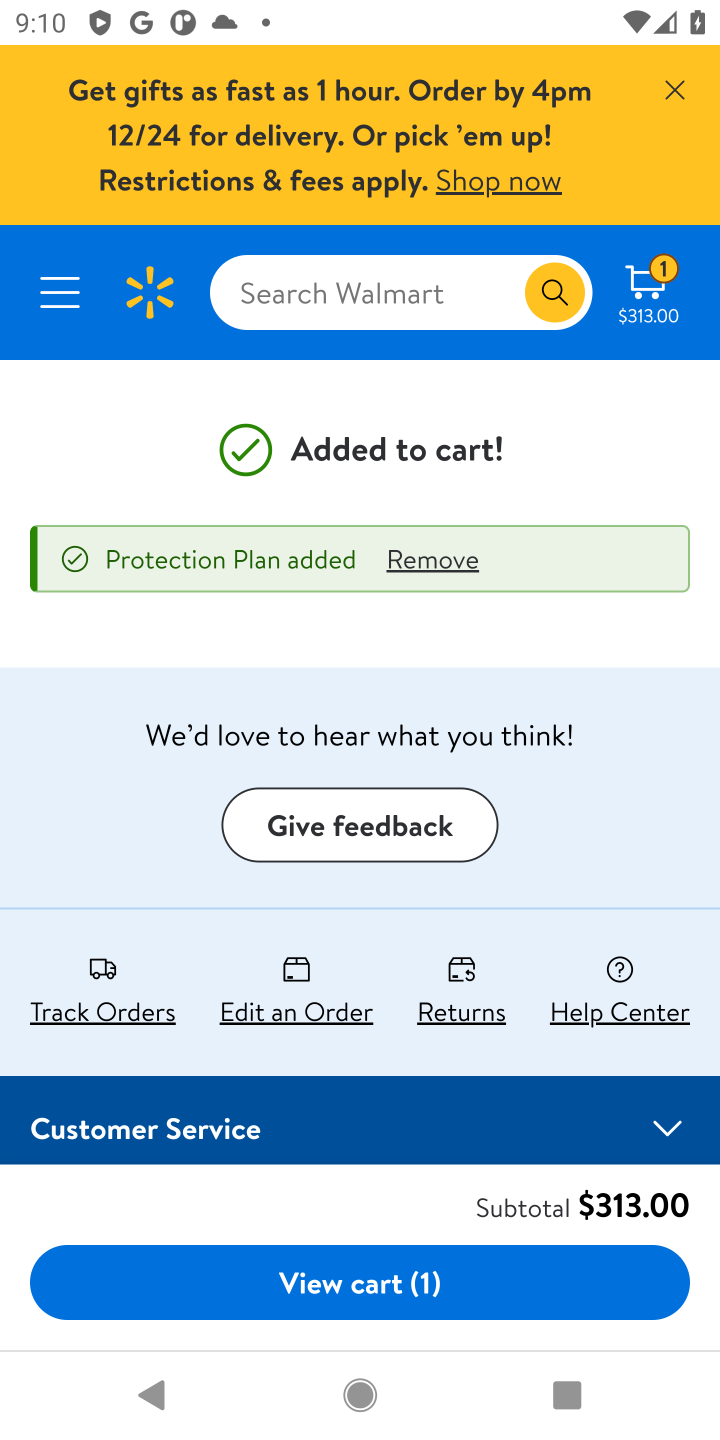
Step 30: task complete